Your task to perform on an android device: Go to Amazon Image 0: 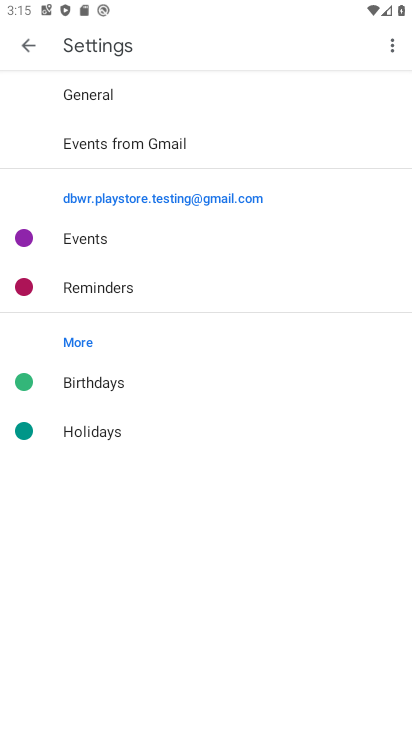
Step 0: press home button
Your task to perform on an android device: Go to Amazon Image 1: 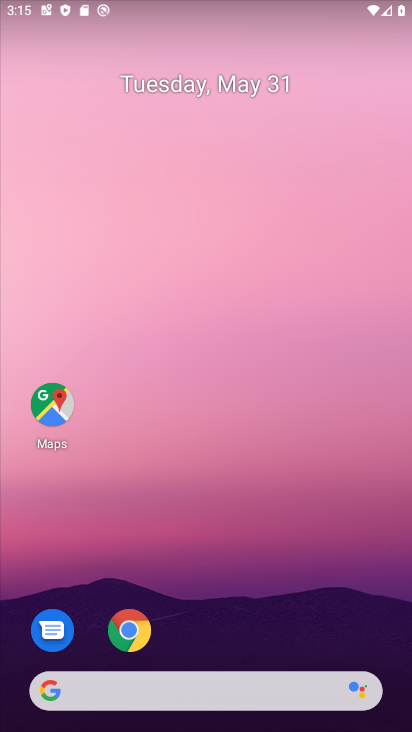
Step 1: click (121, 641)
Your task to perform on an android device: Go to Amazon Image 2: 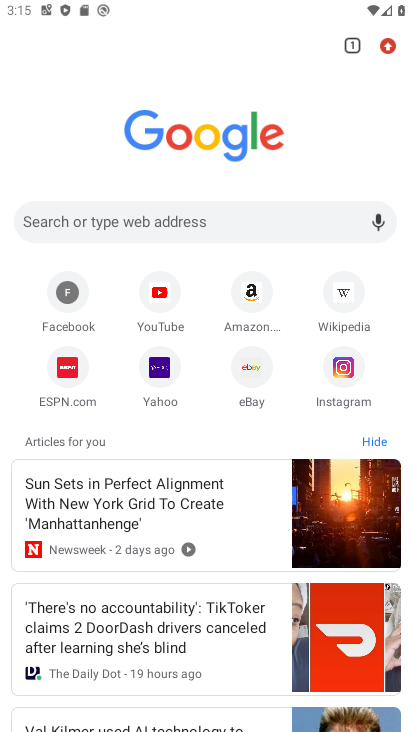
Step 2: click (250, 302)
Your task to perform on an android device: Go to Amazon Image 3: 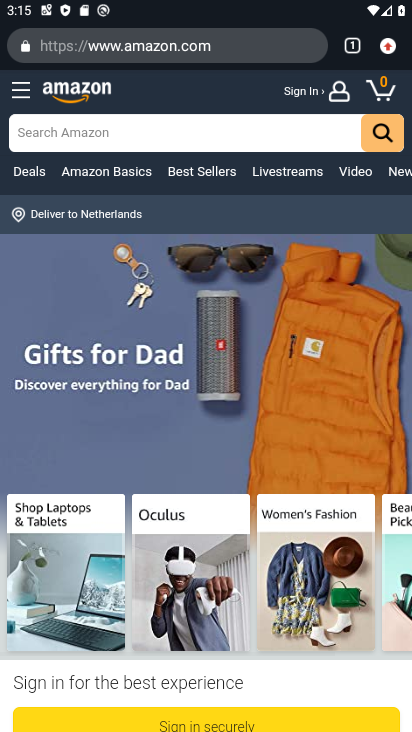
Step 3: task complete